Your task to perform on an android device: add a label to a message in the gmail app Image 0: 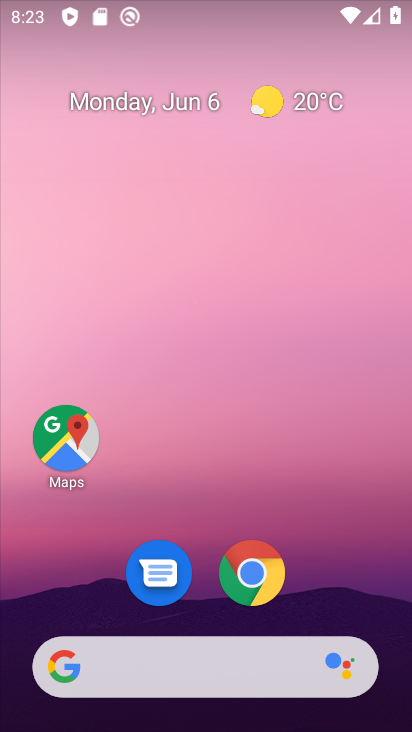
Step 0: drag from (221, 301) to (213, 104)
Your task to perform on an android device: add a label to a message in the gmail app Image 1: 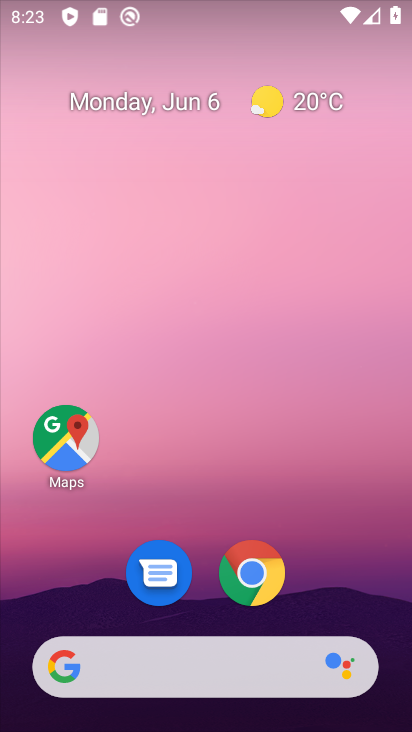
Step 1: drag from (241, 574) to (208, 137)
Your task to perform on an android device: add a label to a message in the gmail app Image 2: 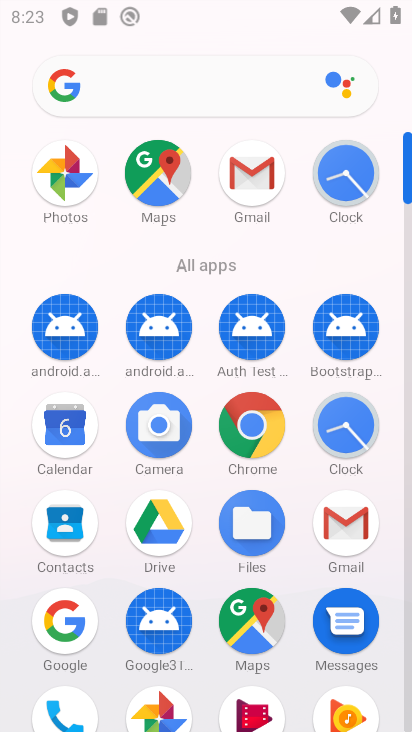
Step 2: drag from (250, 528) to (240, 250)
Your task to perform on an android device: add a label to a message in the gmail app Image 3: 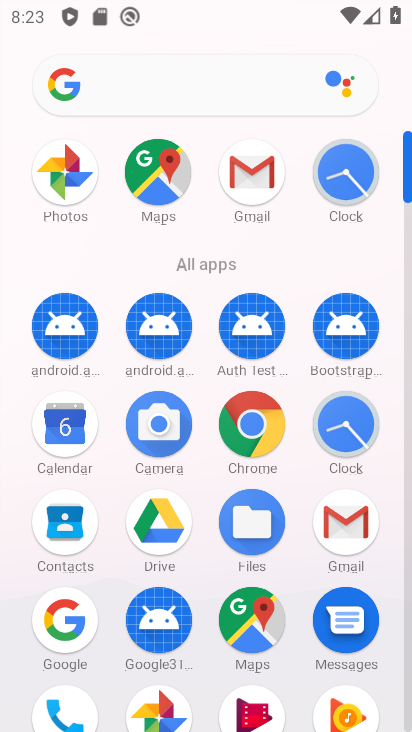
Step 3: click (353, 529)
Your task to perform on an android device: add a label to a message in the gmail app Image 4: 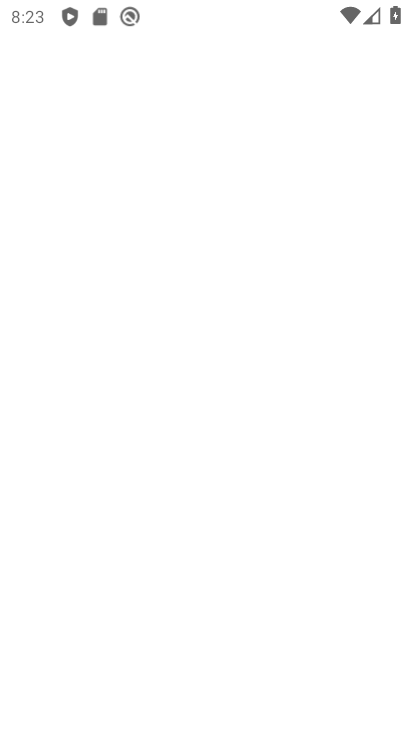
Step 4: click (351, 525)
Your task to perform on an android device: add a label to a message in the gmail app Image 5: 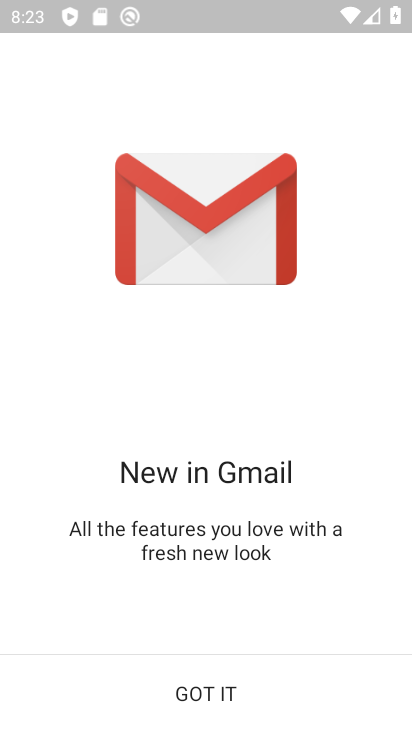
Step 5: click (339, 518)
Your task to perform on an android device: add a label to a message in the gmail app Image 6: 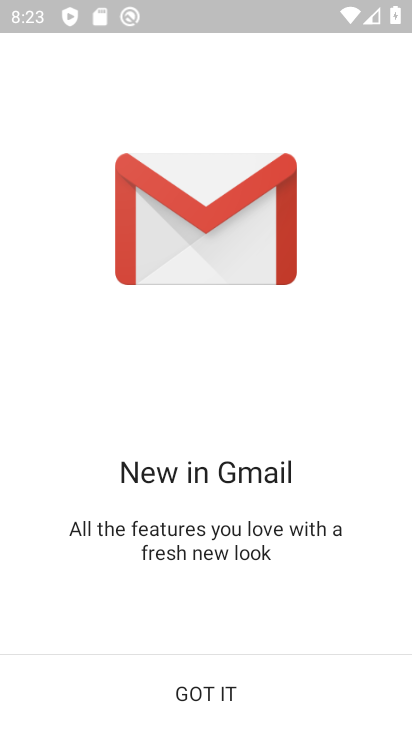
Step 6: click (207, 689)
Your task to perform on an android device: add a label to a message in the gmail app Image 7: 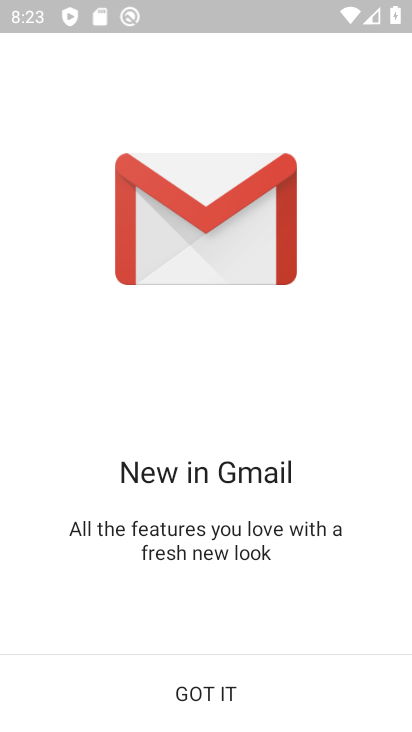
Step 7: click (206, 688)
Your task to perform on an android device: add a label to a message in the gmail app Image 8: 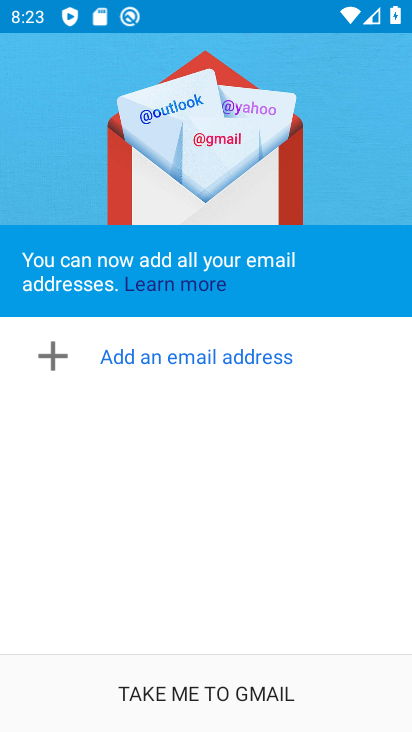
Step 8: click (211, 697)
Your task to perform on an android device: add a label to a message in the gmail app Image 9: 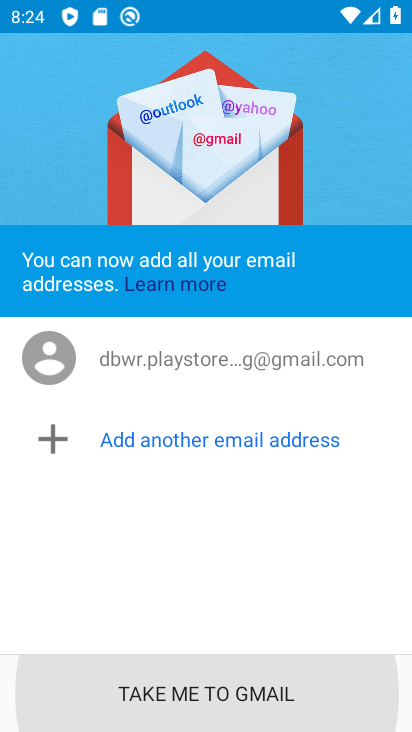
Step 9: click (211, 696)
Your task to perform on an android device: add a label to a message in the gmail app Image 10: 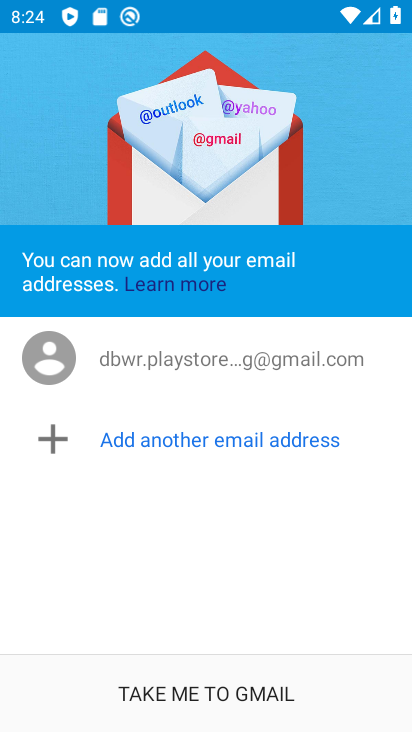
Step 10: click (230, 699)
Your task to perform on an android device: add a label to a message in the gmail app Image 11: 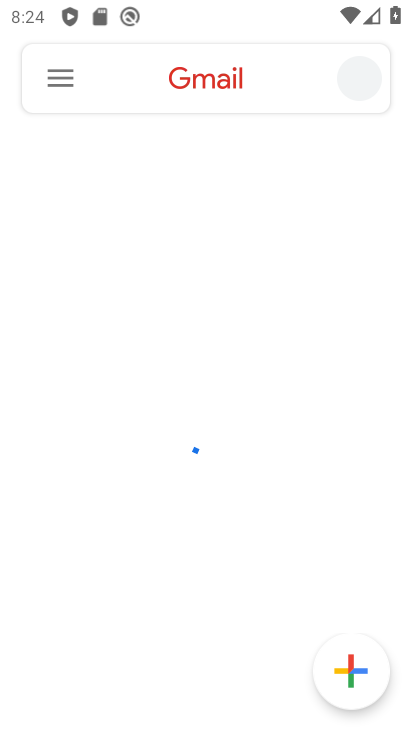
Step 11: click (56, 79)
Your task to perform on an android device: add a label to a message in the gmail app Image 12: 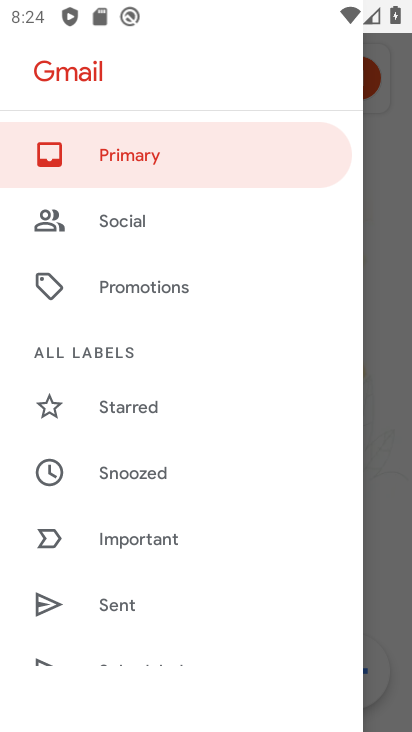
Step 12: drag from (207, 540) to (175, 199)
Your task to perform on an android device: add a label to a message in the gmail app Image 13: 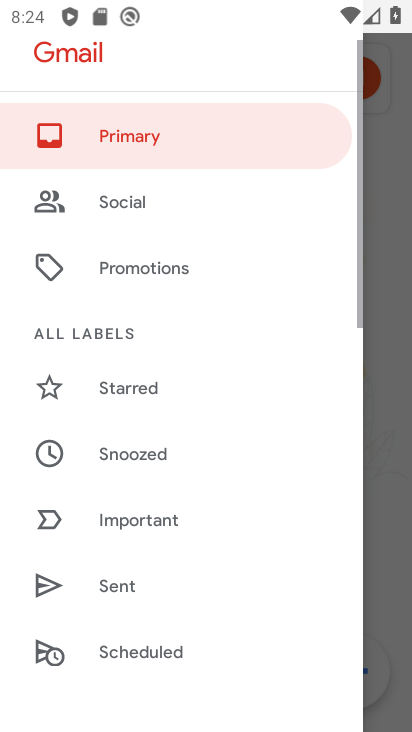
Step 13: drag from (222, 457) to (186, 211)
Your task to perform on an android device: add a label to a message in the gmail app Image 14: 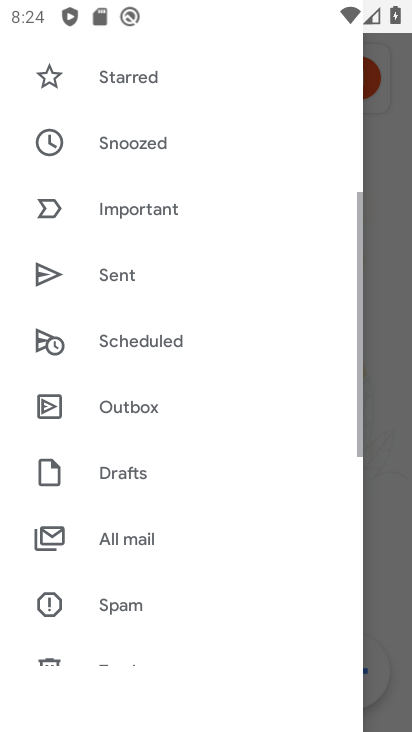
Step 14: click (126, 543)
Your task to perform on an android device: add a label to a message in the gmail app Image 15: 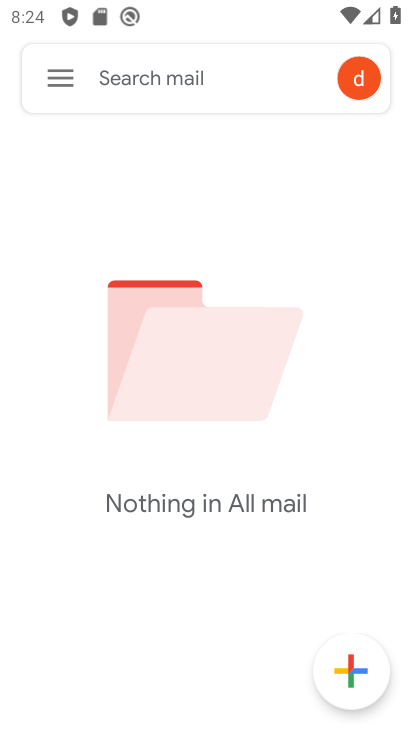
Step 15: task complete